Your task to perform on an android device: Add "logitech g933" to the cart on target, then select checkout. Image 0: 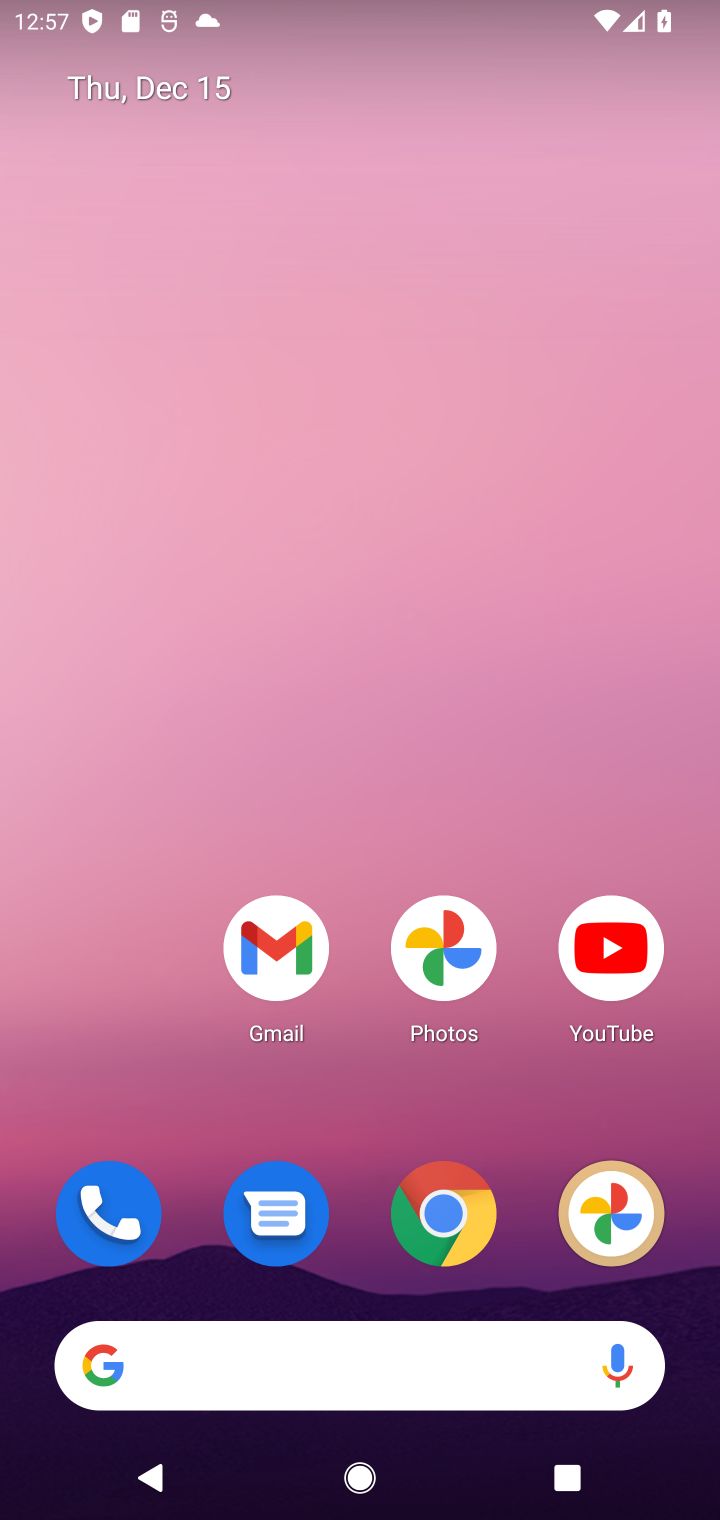
Step 0: click (481, 1222)
Your task to perform on an android device: Add "logitech g933" to the cart on target, then select checkout. Image 1: 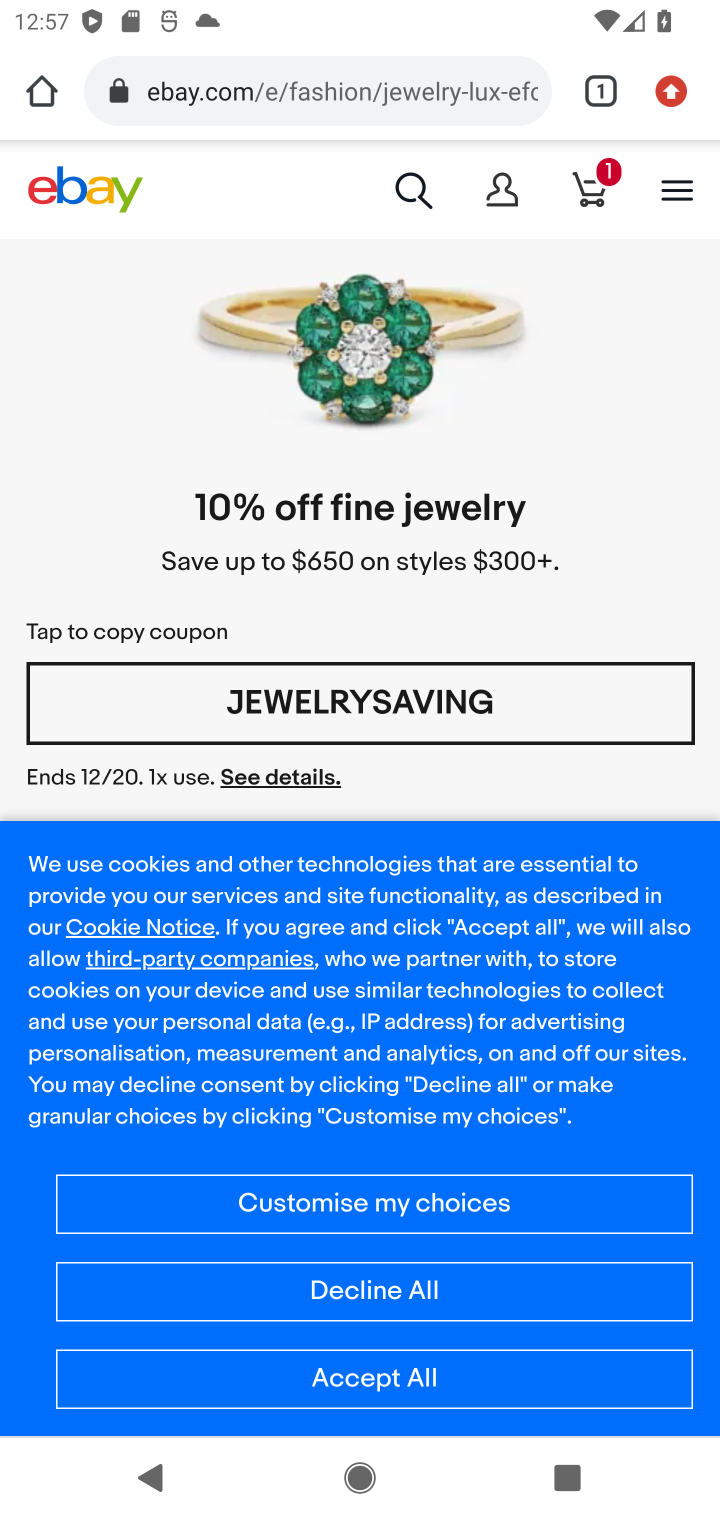
Step 1: click (327, 92)
Your task to perform on an android device: Add "logitech g933" to the cart on target, then select checkout. Image 2: 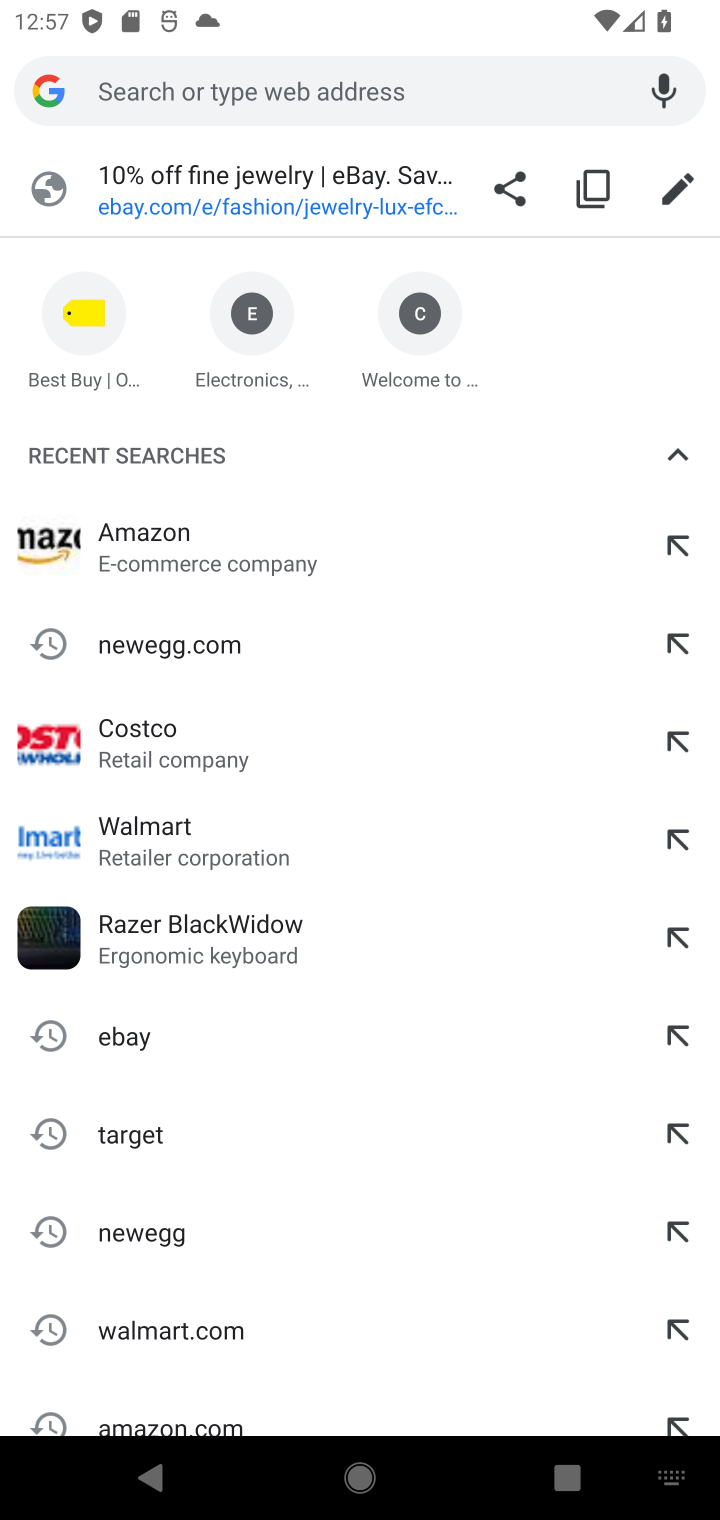
Step 2: click (145, 1146)
Your task to perform on an android device: Add "logitech g933" to the cart on target, then select checkout. Image 3: 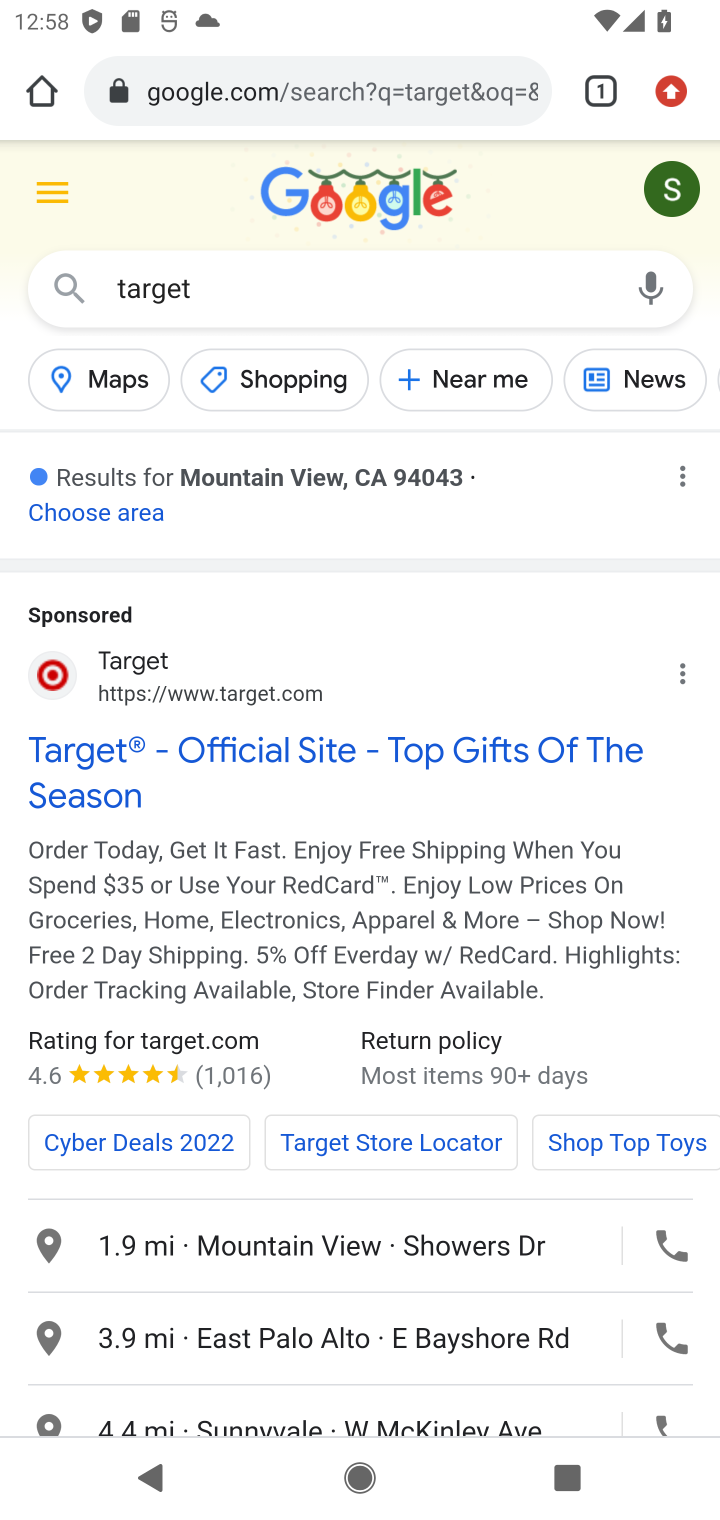
Step 3: click (113, 732)
Your task to perform on an android device: Add "logitech g933" to the cart on target, then select checkout. Image 4: 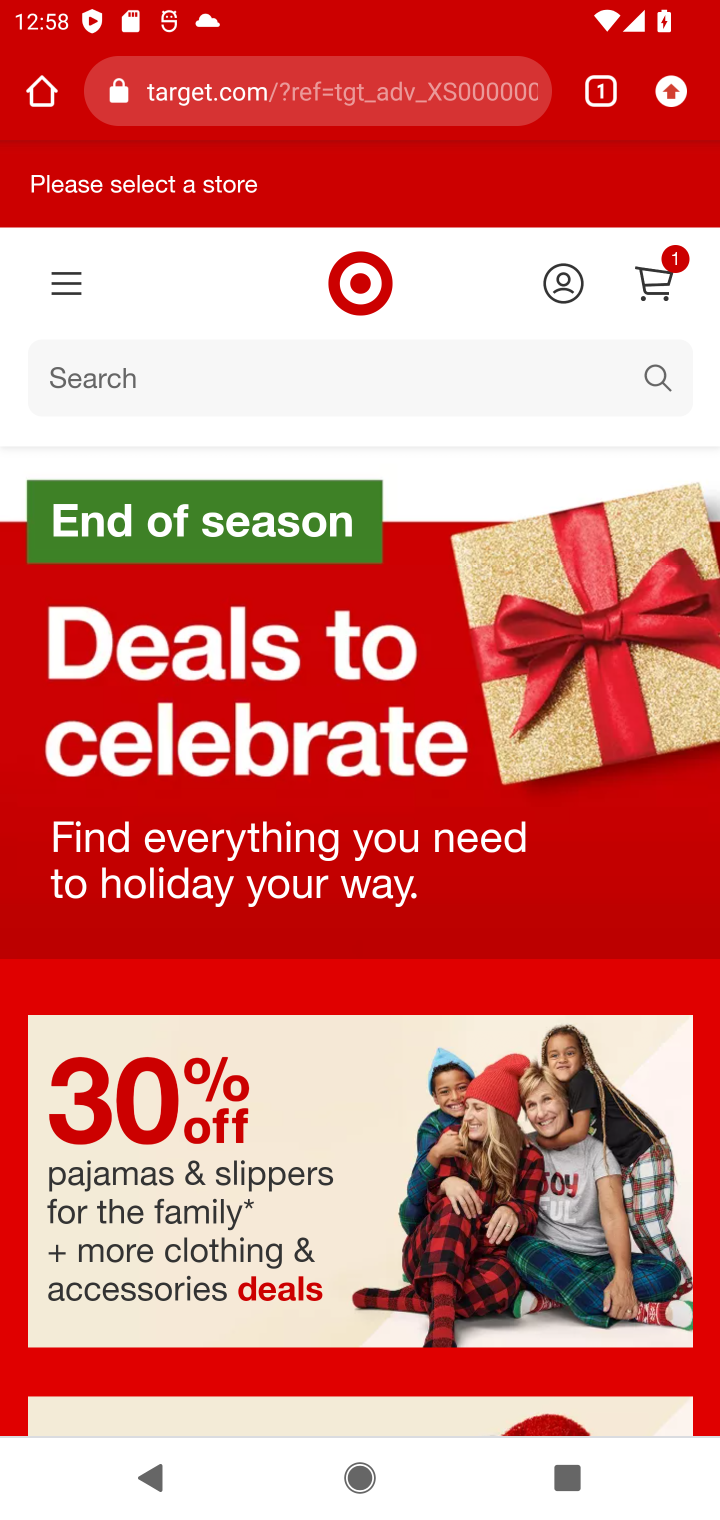
Step 4: click (148, 369)
Your task to perform on an android device: Add "logitech g933" to the cart on target, then select checkout. Image 5: 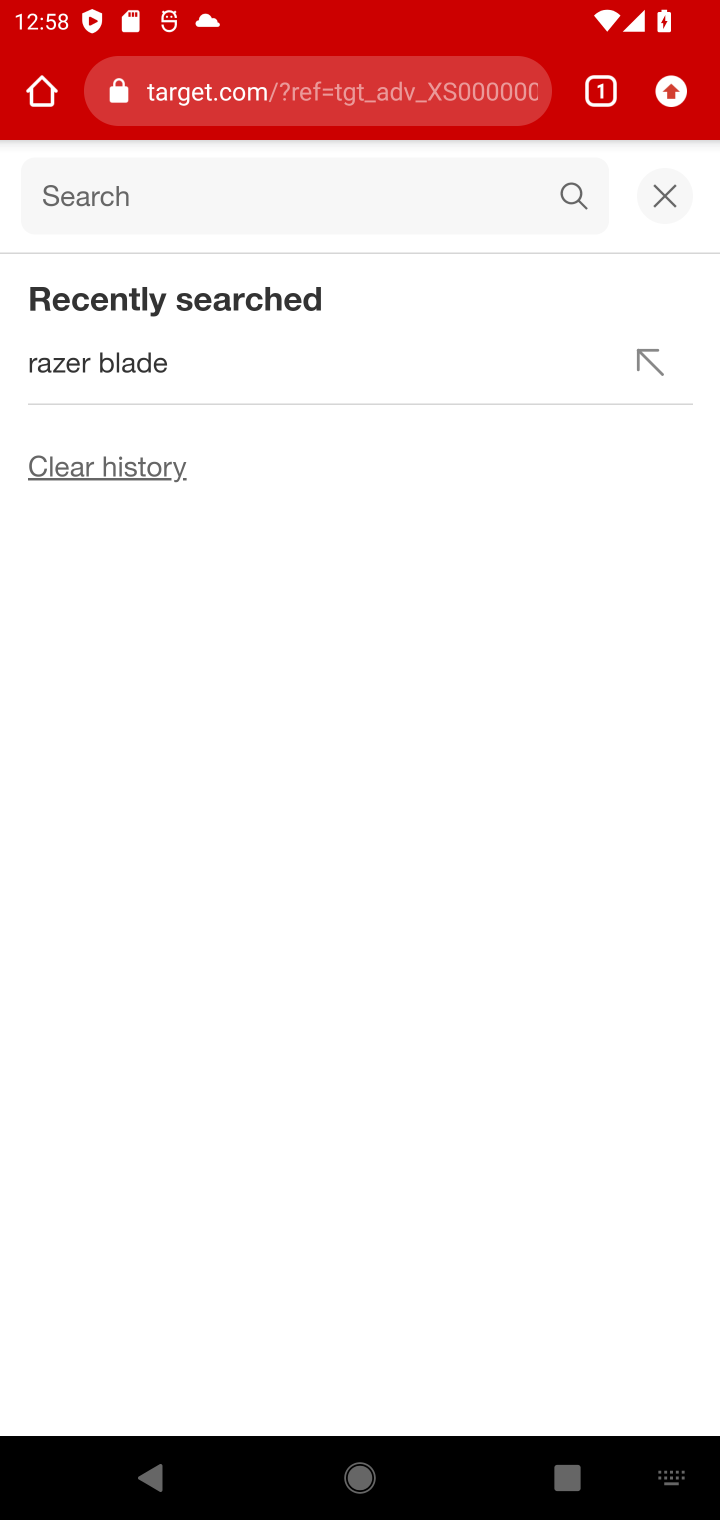
Step 5: type "logitech g933"
Your task to perform on an android device: Add "logitech g933" to the cart on target, then select checkout. Image 6: 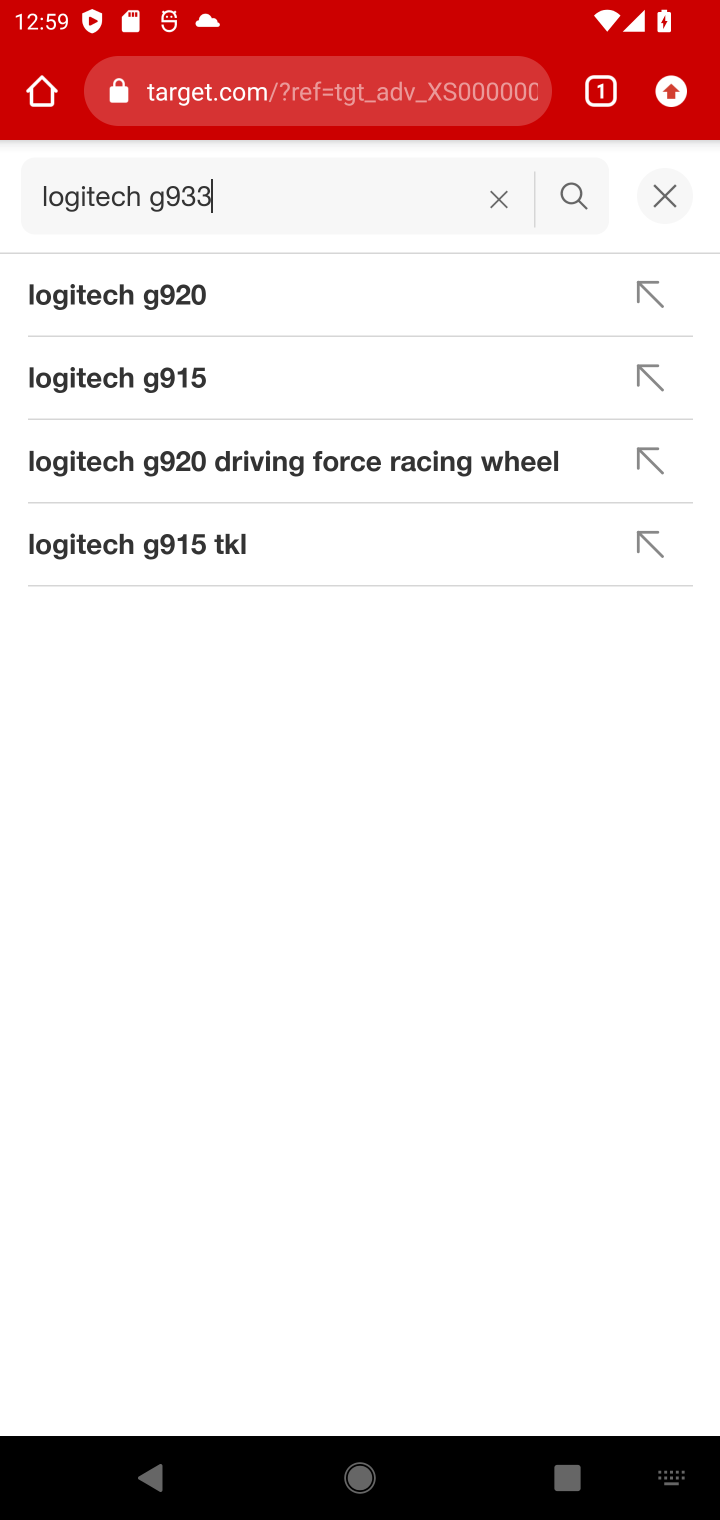
Step 6: click (558, 203)
Your task to perform on an android device: Add "logitech g933" to the cart on target, then select checkout. Image 7: 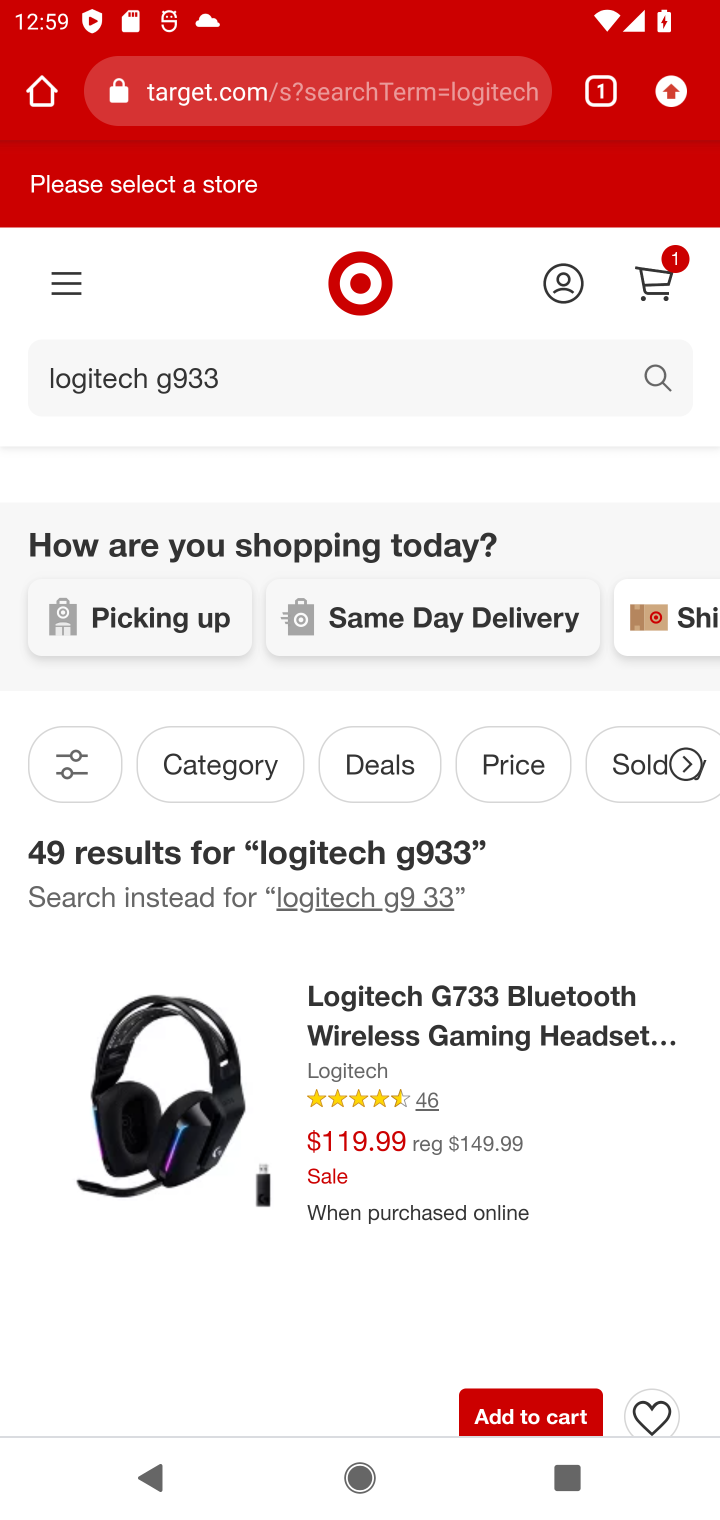
Step 7: click (523, 1402)
Your task to perform on an android device: Add "logitech g933" to the cart on target, then select checkout. Image 8: 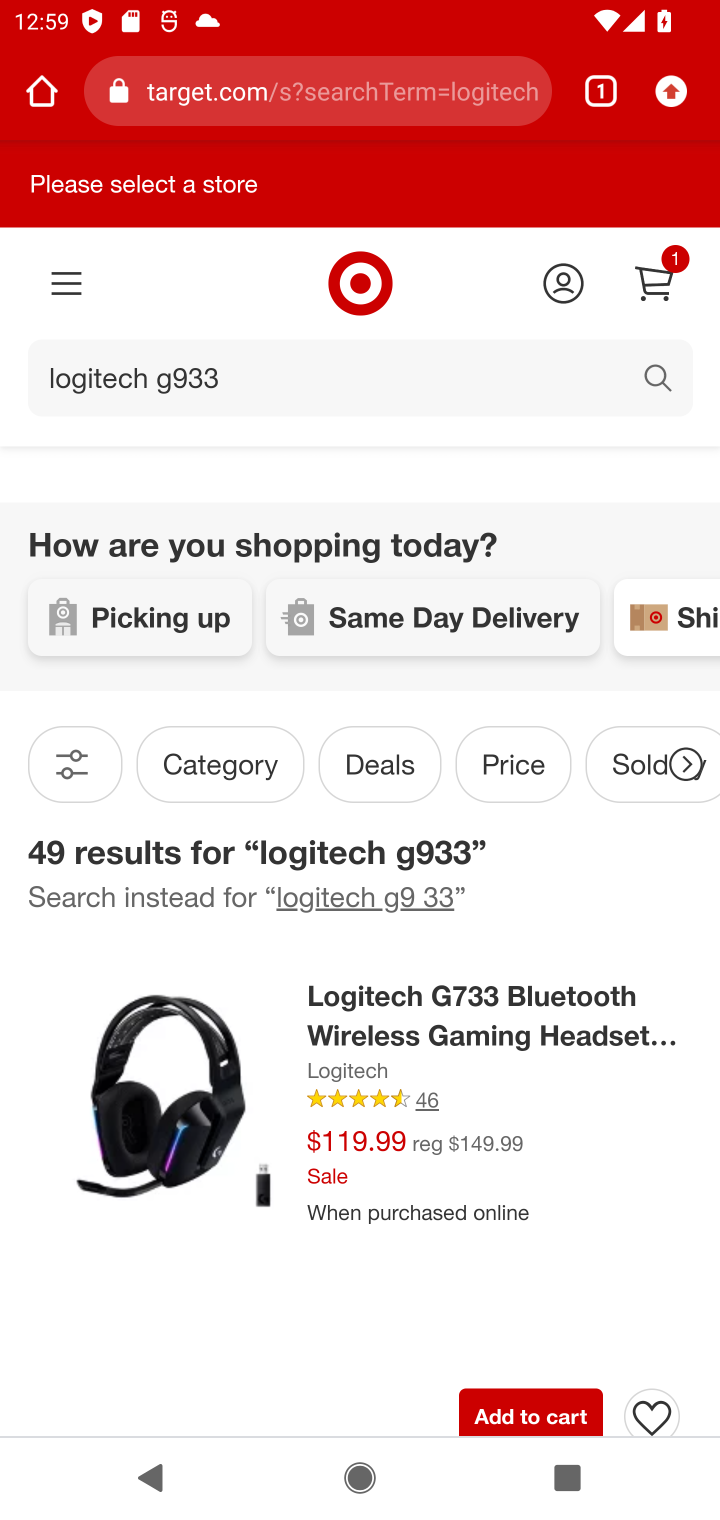
Step 8: task complete